Your task to perform on an android device: Show me recent news Image 0: 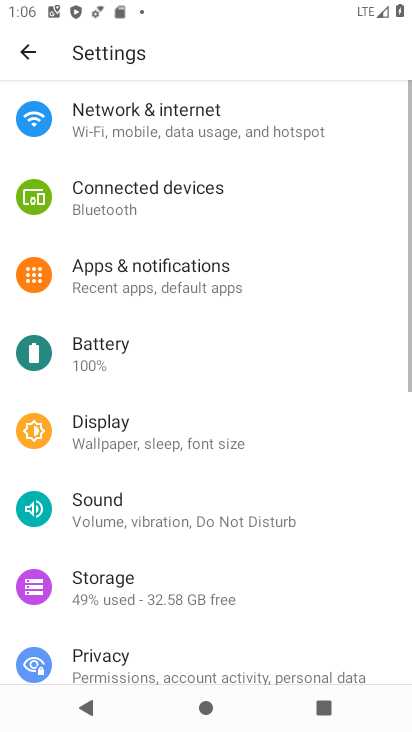
Step 0: press home button
Your task to perform on an android device: Show me recent news Image 1: 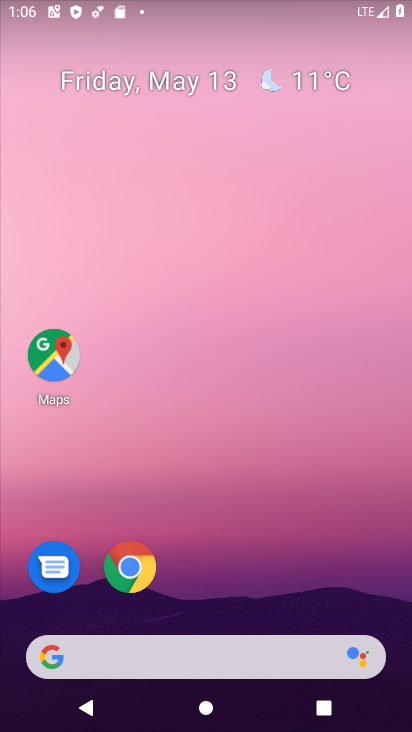
Step 1: task complete